Your task to perform on an android device: turn on the 24-hour format for clock Image 0: 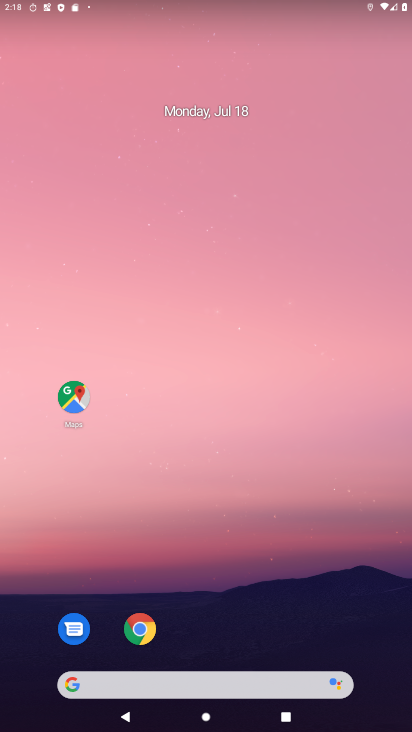
Step 0: press home button
Your task to perform on an android device: turn on the 24-hour format for clock Image 1: 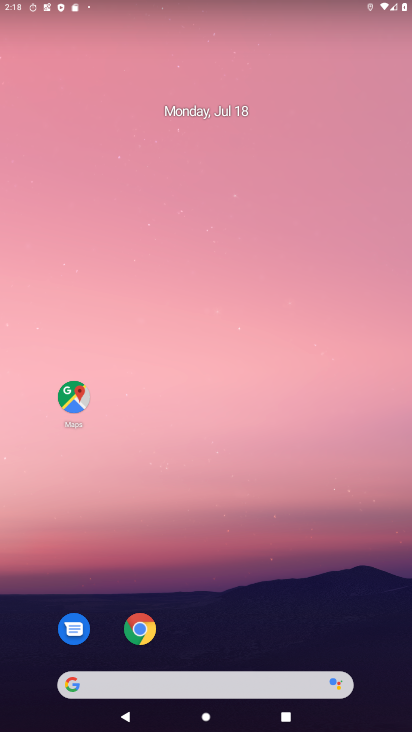
Step 1: drag from (231, 663) to (259, 99)
Your task to perform on an android device: turn on the 24-hour format for clock Image 2: 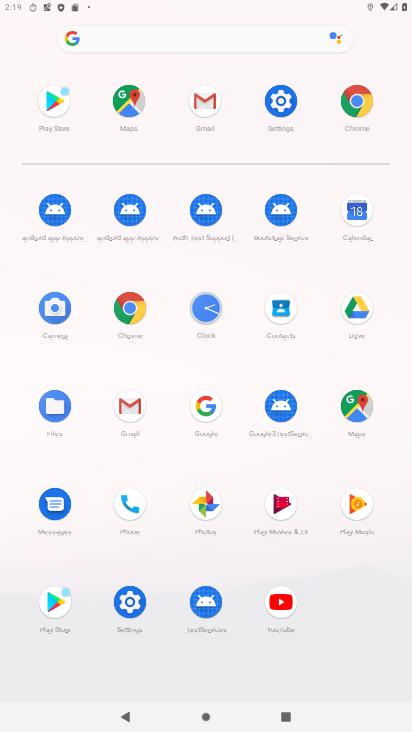
Step 2: click (201, 303)
Your task to perform on an android device: turn on the 24-hour format for clock Image 3: 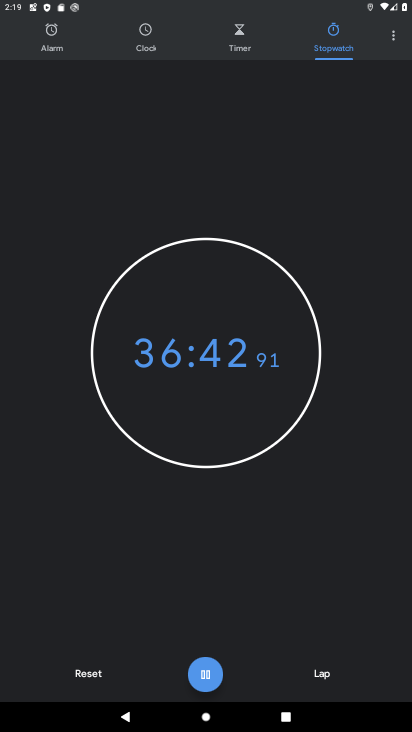
Step 3: click (388, 34)
Your task to perform on an android device: turn on the 24-hour format for clock Image 4: 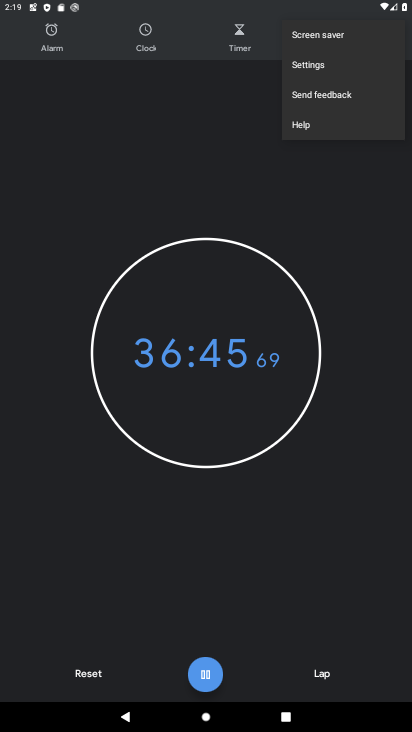
Step 4: click (335, 67)
Your task to perform on an android device: turn on the 24-hour format for clock Image 5: 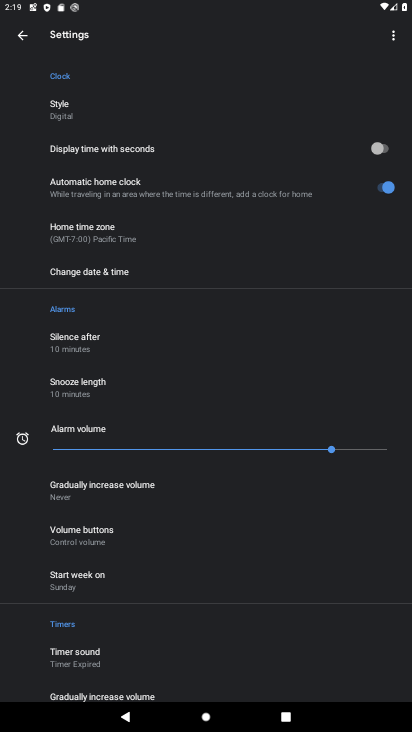
Step 5: click (132, 273)
Your task to perform on an android device: turn on the 24-hour format for clock Image 6: 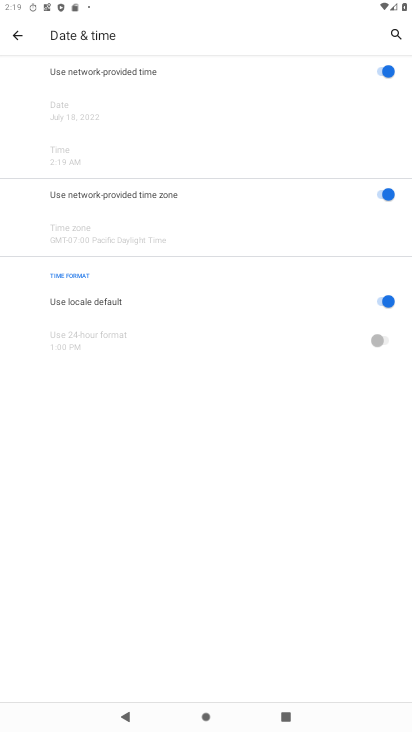
Step 6: click (381, 299)
Your task to perform on an android device: turn on the 24-hour format for clock Image 7: 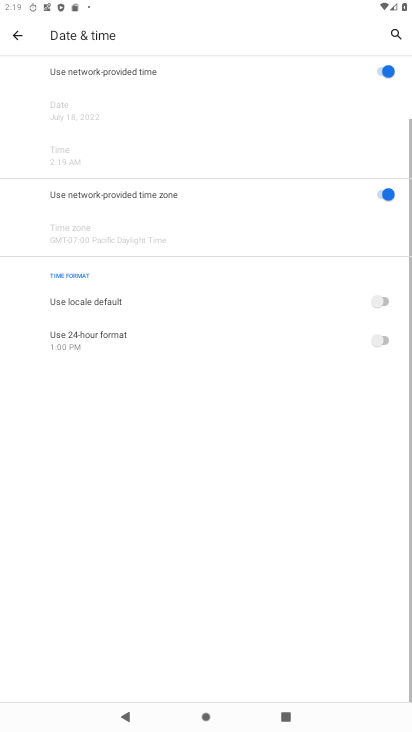
Step 7: click (377, 338)
Your task to perform on an android device: turn on the 24-hour format for clock Image 8: 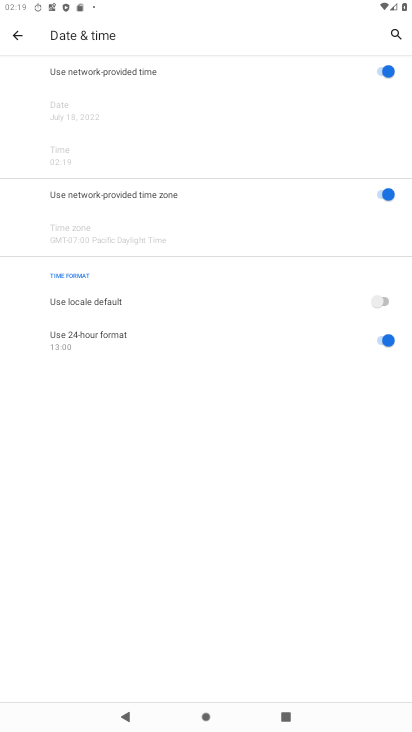
Step 8: task complete